Your task to perform on an android device: Go to CNN.com Image 0: 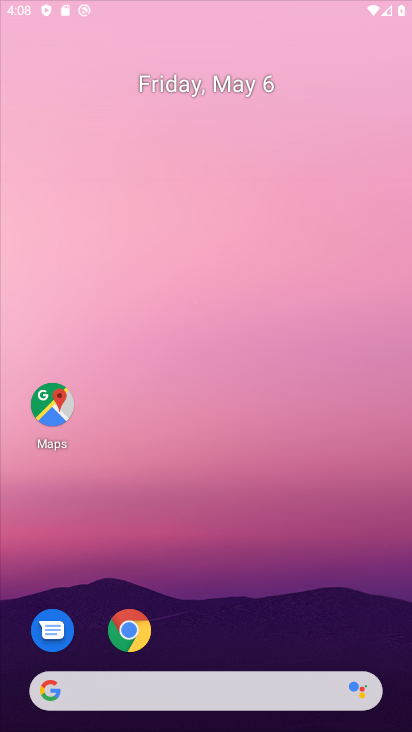
Step 0: drag from (196, 474) to (233, 4)
Your task to perform on an android device: Go to CNN.com Image 1: 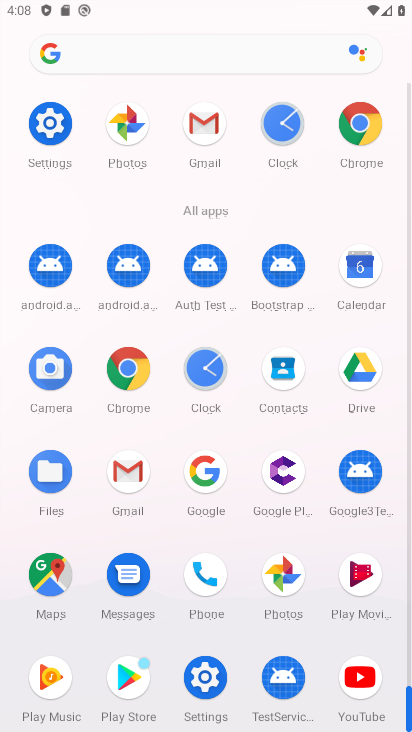
Step 1: click (127, 371)
Your task to perform on an android device: Go to CNN.com Image 2: 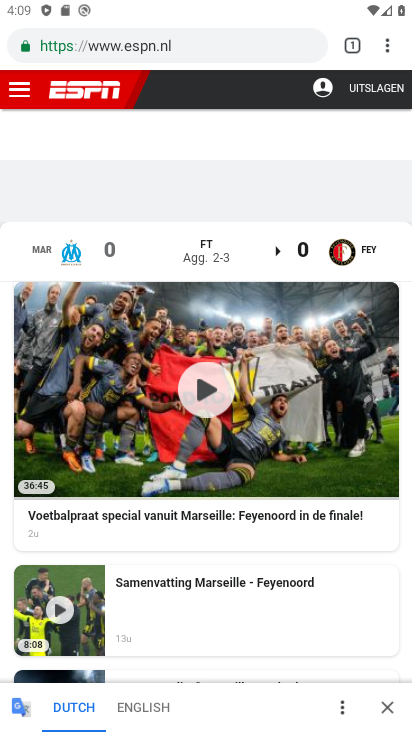
Step 2: click (284, 43)
Your task to perform on an android device: Go to CNN.com Image 3: 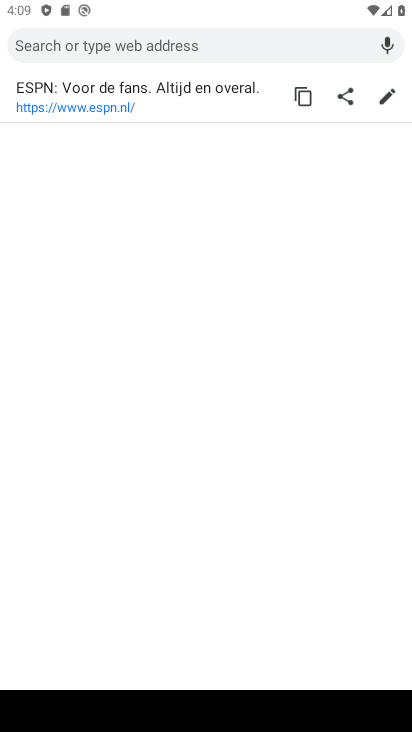
Step 3: type "cnn.com"
Your task to perform on an android device: Go to CNN.com Image 4: 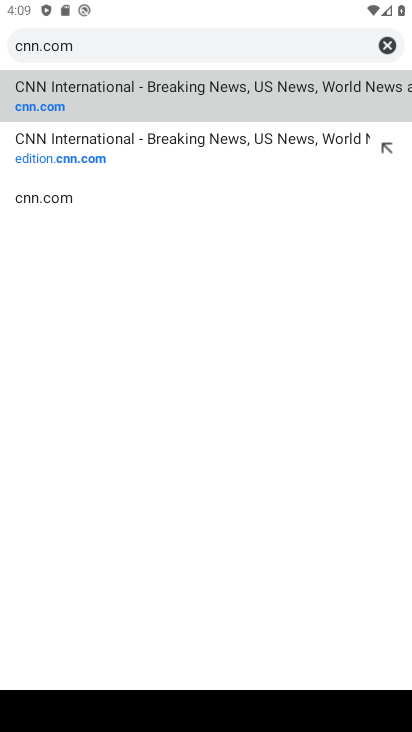
Step 4: click (189, 85)
Your task to perform on an android device: Go to CNN.com Image 5: 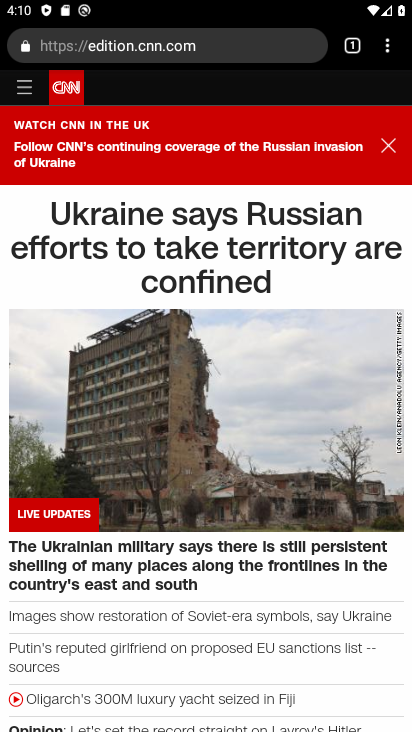
Step 5: task complete